Your task to perform on an android device: Go to wifi settings Image 0: 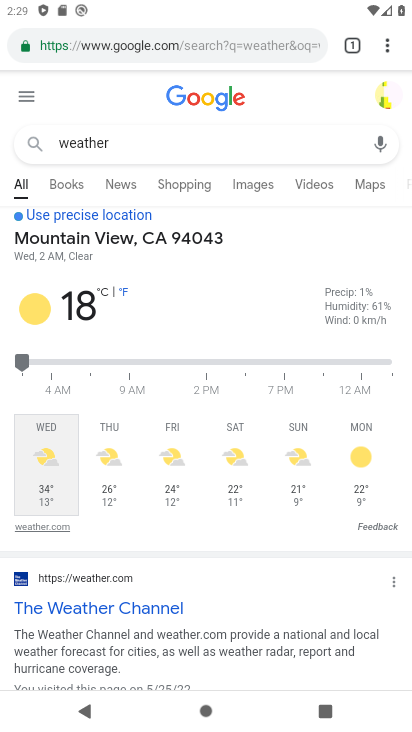
Step 0: press home button
Your task to perform on an android device: Go to wifi settings Image 1: 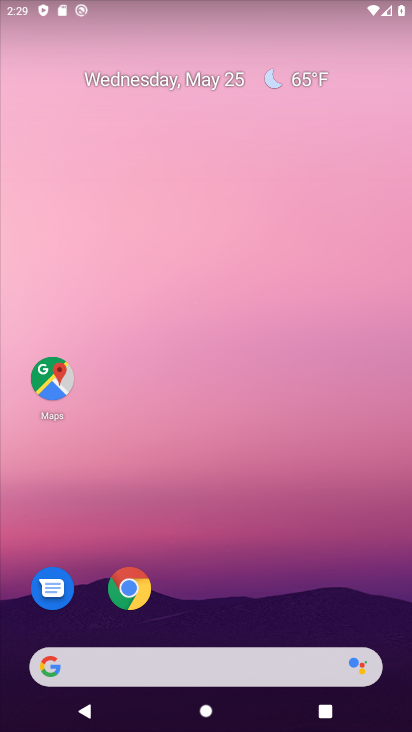
Step 1: drag from (206, 580) to (199, 70)
Your task to perform on an android device: Go to wifi settings Image 2: 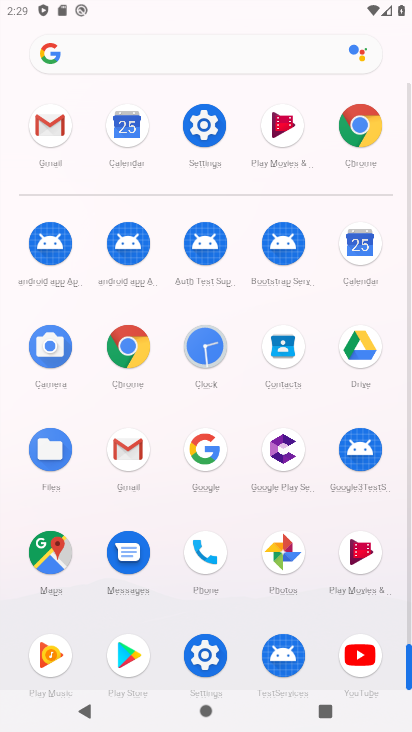
Step 2: click (206, 121)
Your task to perform on an android device: Go to wifi settings Image 3: 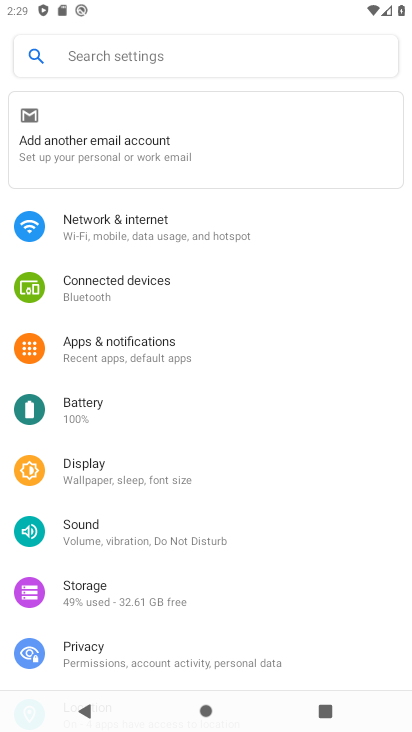
Step 3: click (193, 228)
Your task to perform on an android device: Go to wifi settings Image 4: 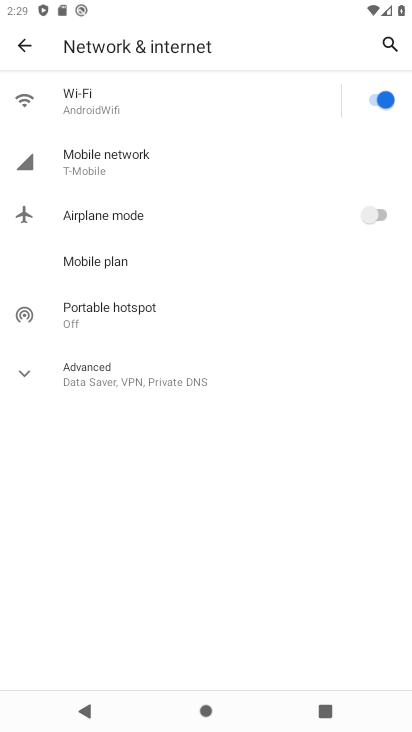
Step 4: click (112, 107)
Your task to perform on an android device: Go to wifi settings Image 5: 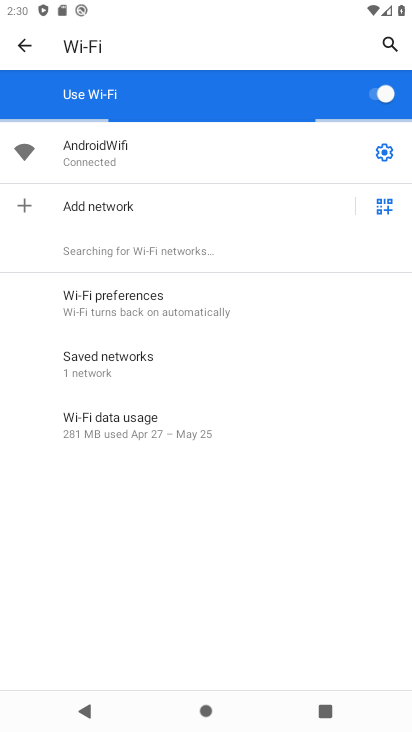
Step 5: task complete